Your task to perform on an android device: Show me popular videos on Youtube Image 0: 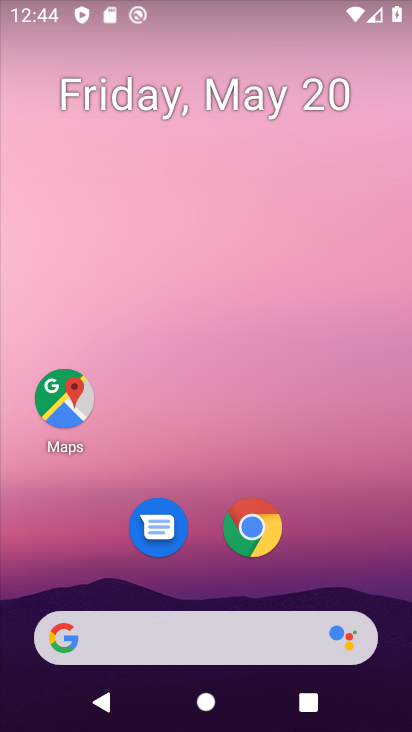
Step 0: drag from (318, 477) to (247, 28)
Your task to perform on an android device: Show me popular videos on Youtube Image 1: 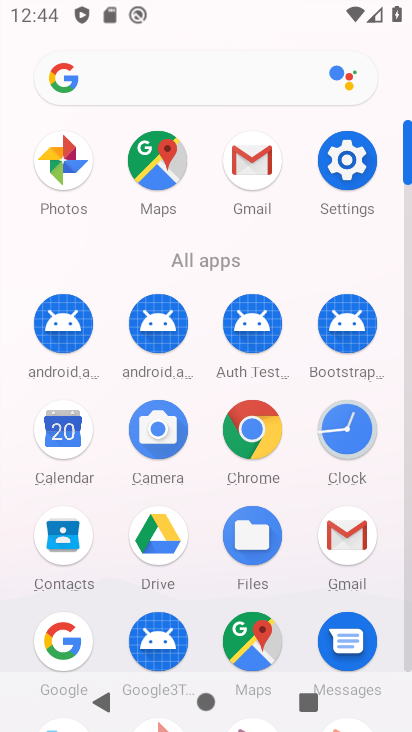
Step 1: drag from (248, 390) to (233, 114)
Your task to perform on an android device: Show me popular videos on Youtube Image 2: 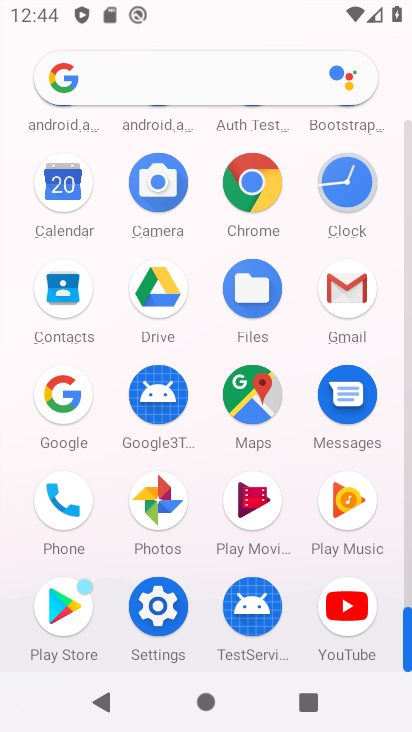
Step 2: click (341, 607)
Your task to perform on an android device: Show me popular videos on Youtube Image 3: 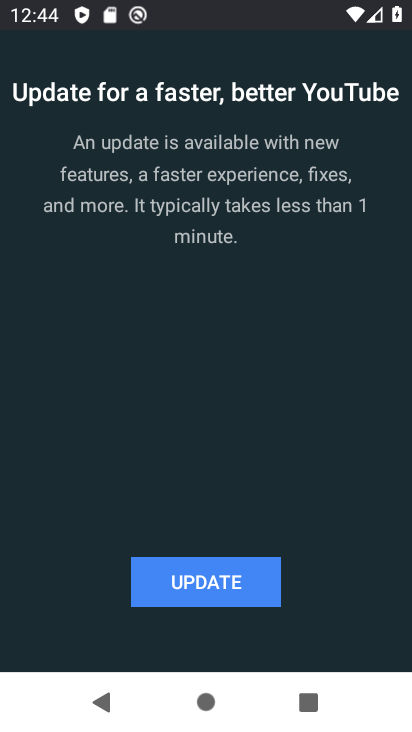
Step 3: press home button
Your task to perform on an android device: Show me popular videos on Youtube Image 4: 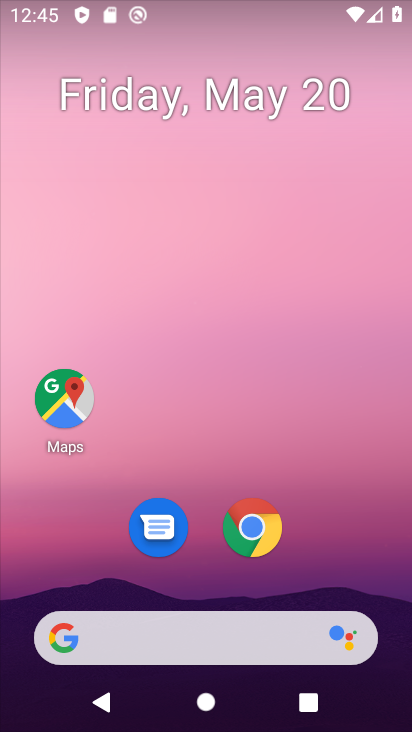
Step 4: drag from (308, 504) to (339, 40)
Your task to perform on an android device: Show me popular videos on Youtube Image 5: 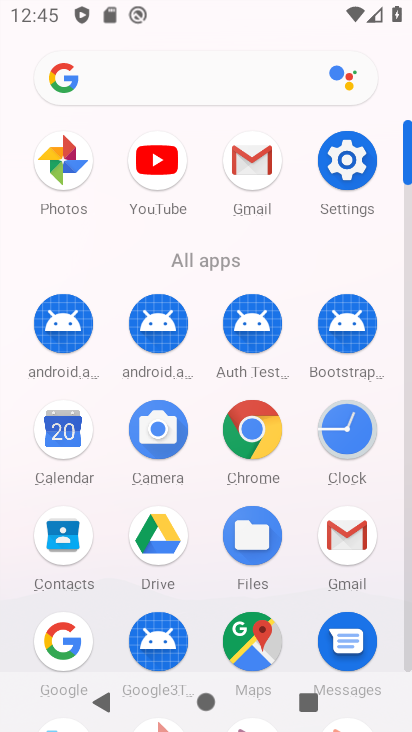
Step 5: drag from (304, 472) to (292, 164)
Your task to perform on an android device: Show me popular videos on Youtube Image 6: 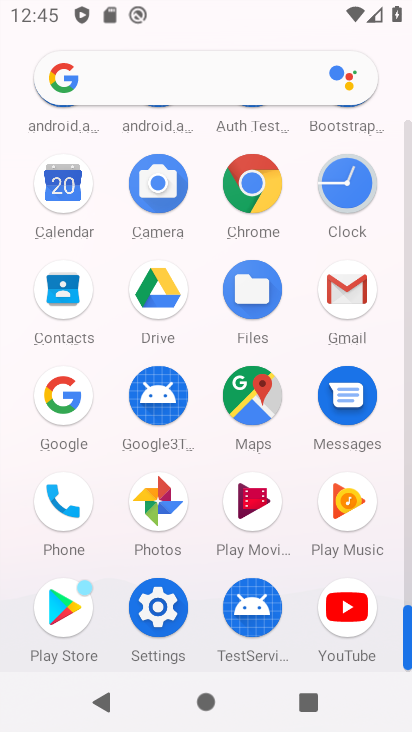
Step 6: click (342, 602)
Your task to perform on an android device: Show me popular videos on Youtube Image 7: 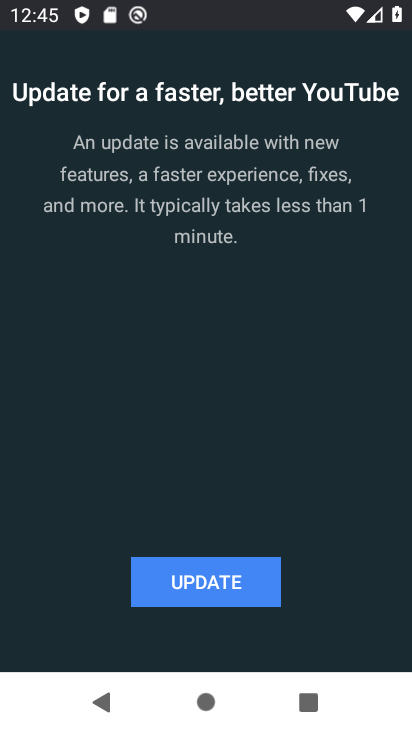
Step 7: click (251, 580)
Your task to perform on an android device: Show me popular videos on Youtube Image 8: 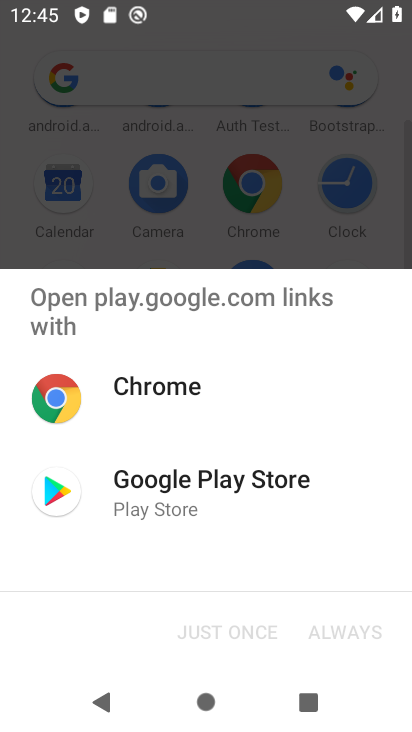
Step 8: click (178, 499)
Your task to perform on an android device: Show me popular videos on Youtube Image 9: 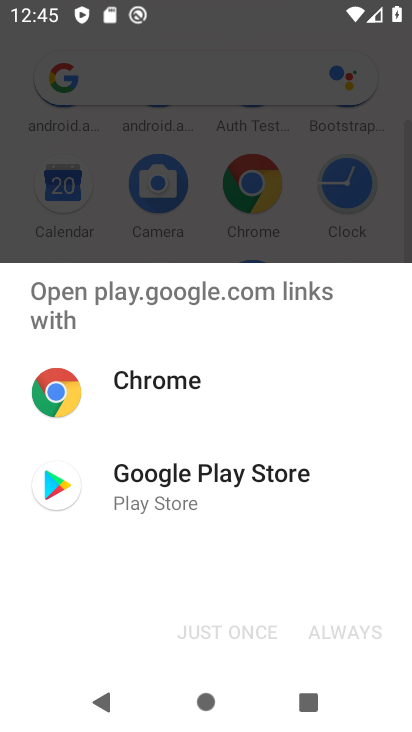
Step 9: click (158, 488)
Your task to perform on an android device: Show me popular videos on Youtube Image 10: 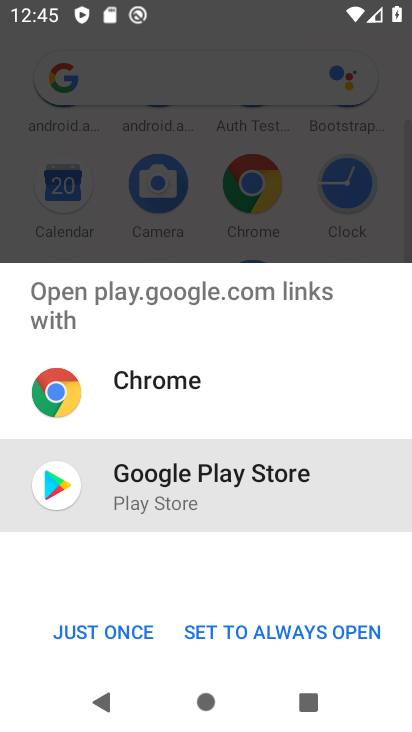
Step 10: click (123, 630)
Your task to perform on an android device: Show me popular videos on Youtube Image 11: 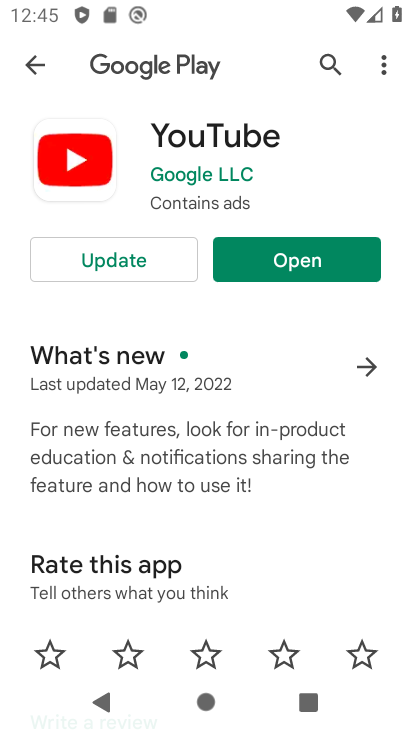
Step 11: click (148, 252)
Your task to perform on an android device: Show me popular videos on Youtube Image 12: 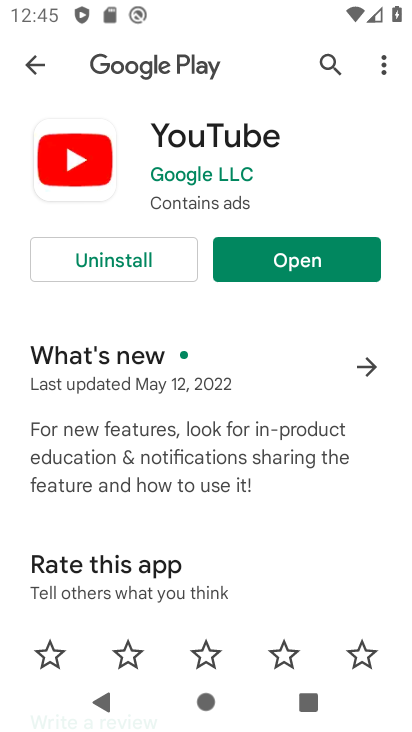
Step 12: click (355, 260)
Your task to perform on an android device: Show me popular videos on Youtube Image 13: 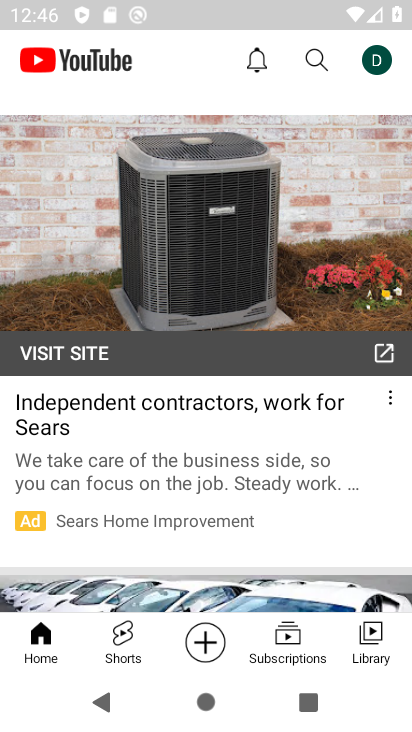
Step 13: click (316, 62)
Your task to perform on an android device: Show me popular videos on Youtube Image 14: 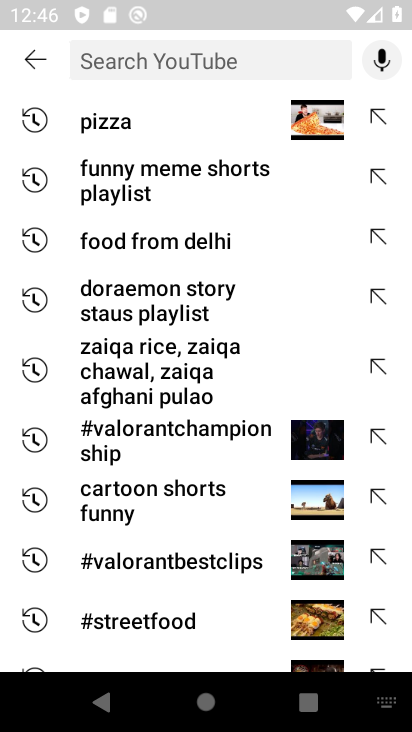
Step 14: drag from (184, 455) to (230, 635)
Your task to perform on an android device: Show me popular videos on Youtube Image 15: 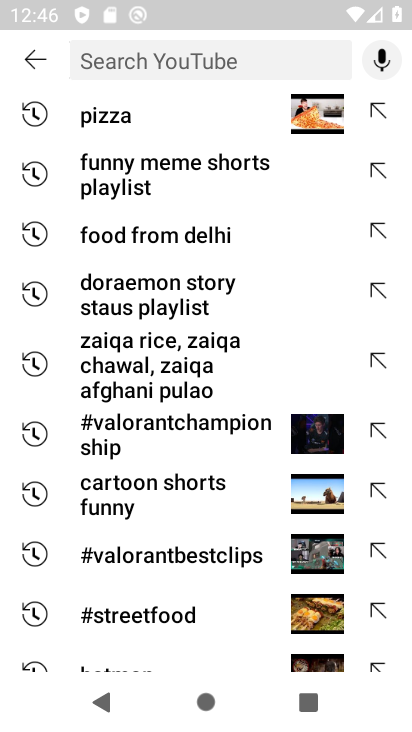
Step 15: type "popular videos"
Your task to perform on an android device: Show me popular videos on Youtube Image 16: 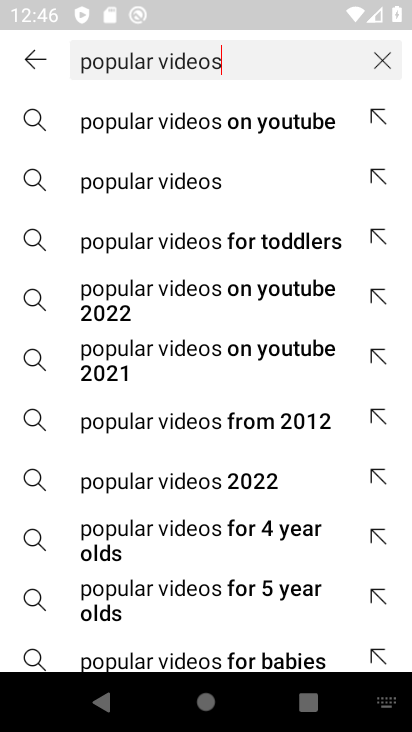
Step 16: click (204, 113)
Your task to perform on an android device: Show me popular videos on Youtube Image 17: 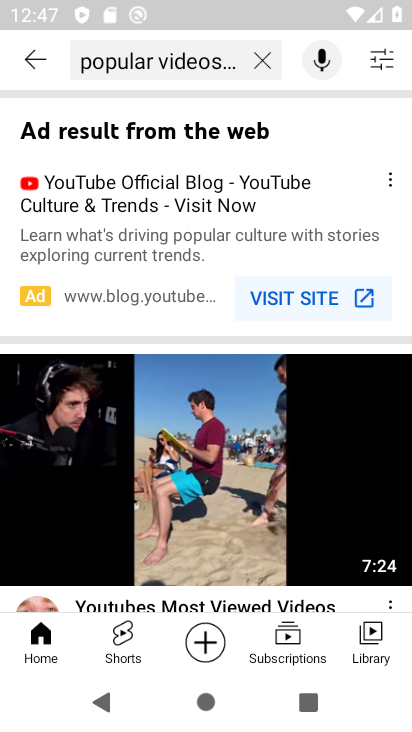
Step 17: task complete